Your task to perform on an android device: Open Chrome and go to settings Image 0: 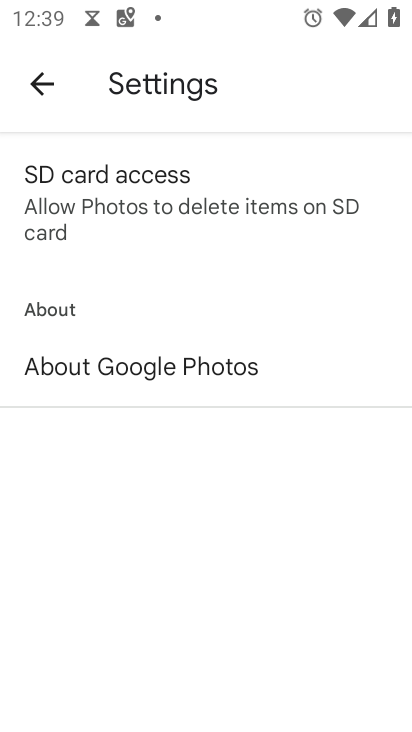
Step 0: press home button
Your task to perform on an android device: Open Chrome and go to settings Image 1: 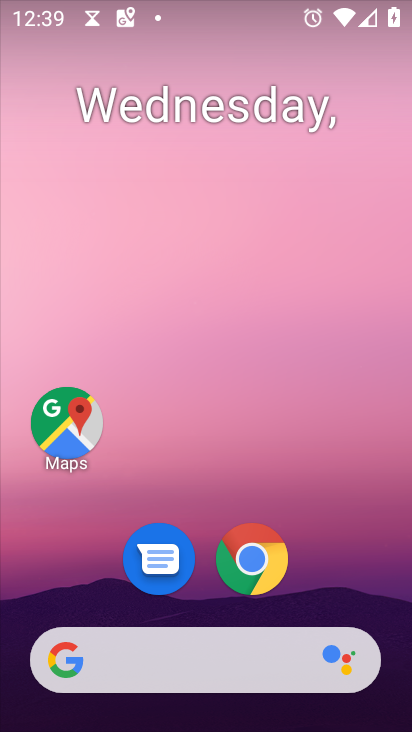
Step 1: drag from (350, 606) to (389, 70)
Your task to perform on an android device: Open Chrome and go to settings Image 2: 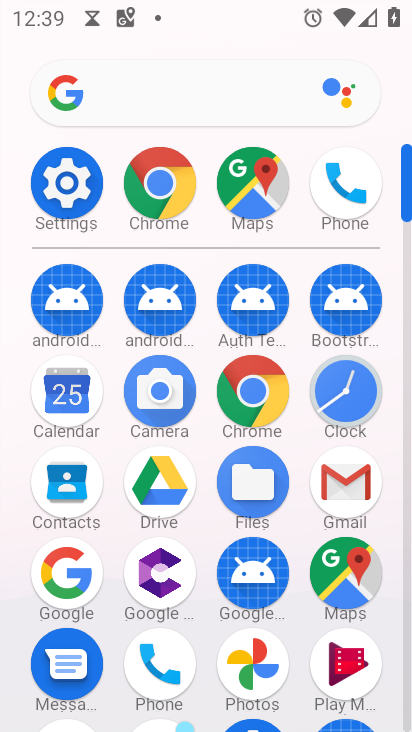
Step 2: click (166, 198)
Your task to perform on an android device: Open Chrome and go to settings Image 3: 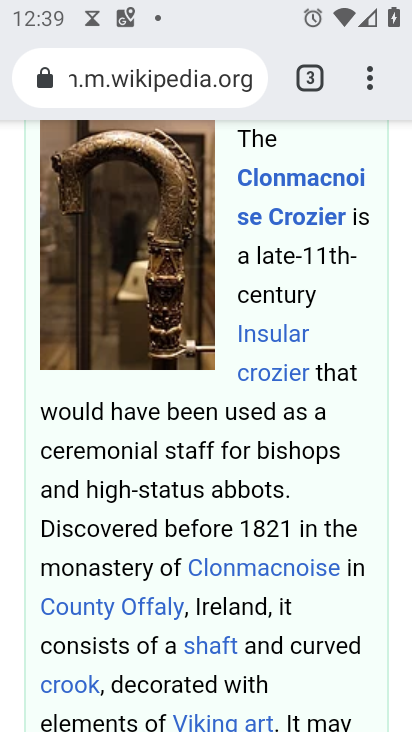
Step 3: task complete